Your task to perform on an android device: set default search engine in the chrome app Image 0: 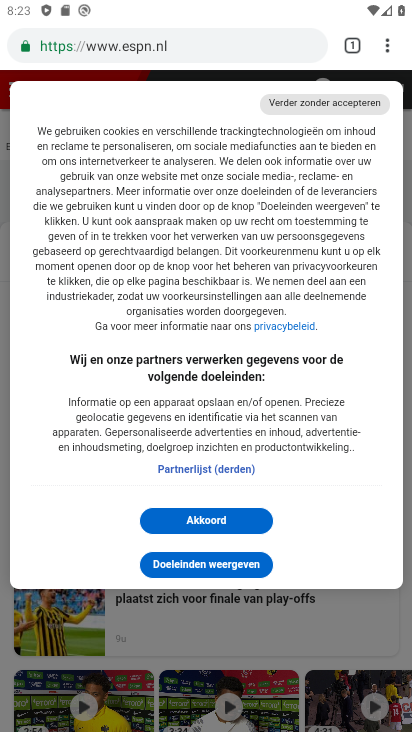
Step 0: press home button
Your task to perform on an android device: set default search engine in the chrome app Image 1: 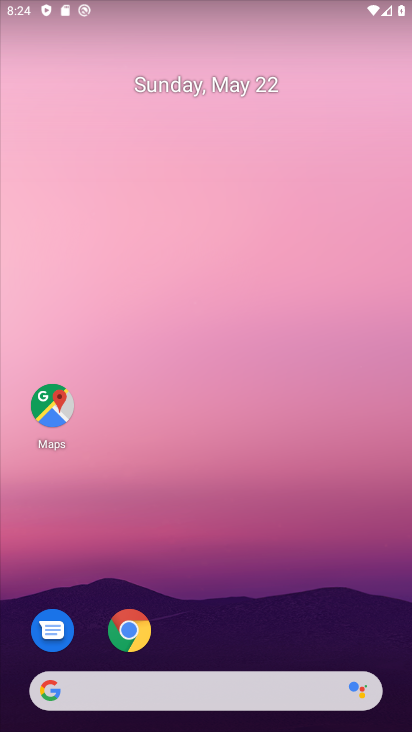
Step 1: click (122, 628)
Your task to perform on an android device: set default search engine in the chrome app Image 2: 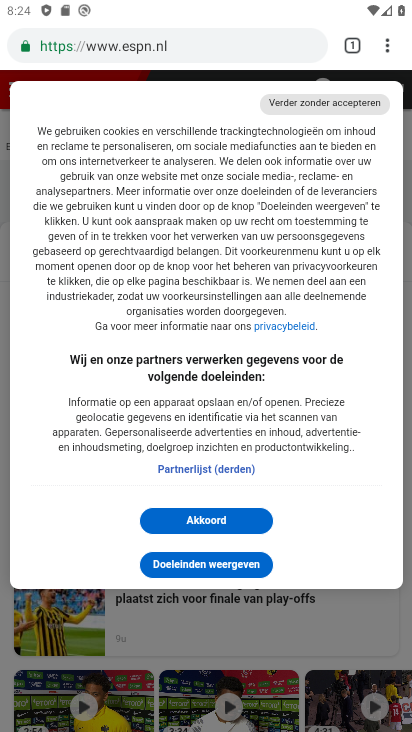
Step 2: click (380, 61)
Your task to perform on an android device: set default search engine in the chrome app Image 3: 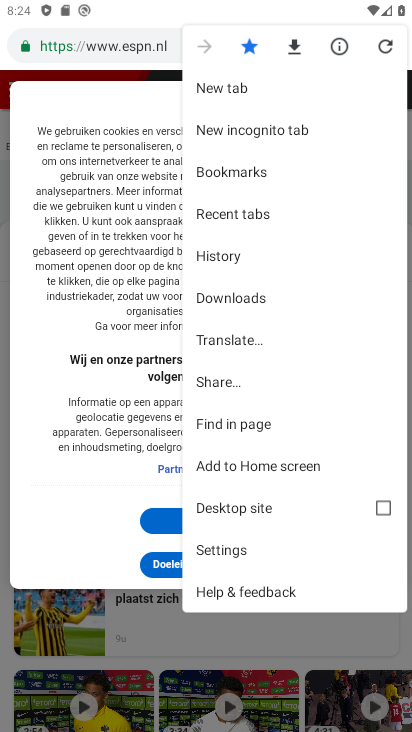
Step 3: click (233, 534)
Your task to perform on an android device: set default search engine in the chrome app Image 4: 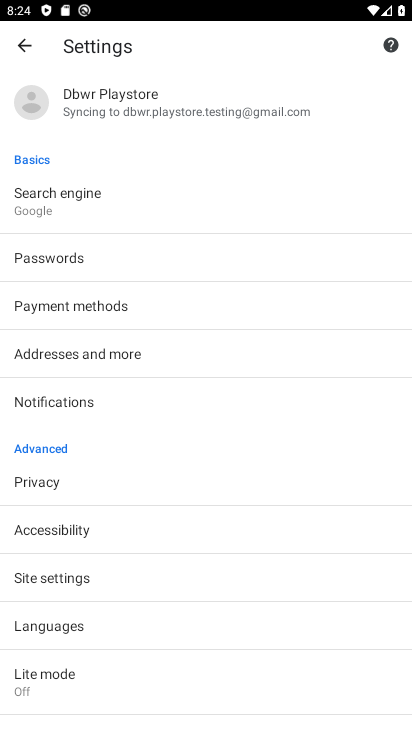
Step 4: click (120, 216)
Your task to perform on an android device: set default search engine in the chrome app Image 5: 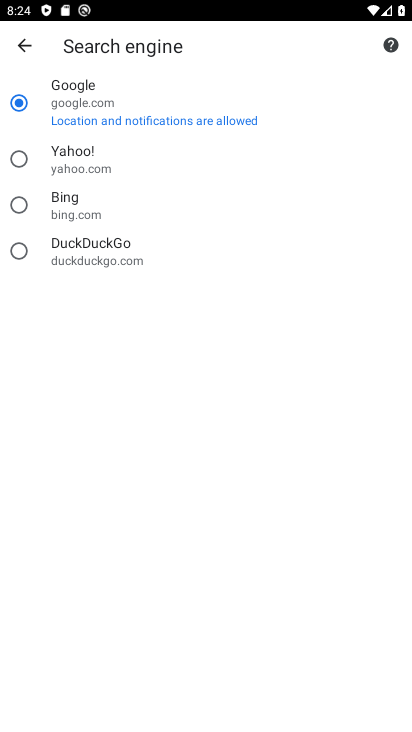
Step 5: click (58, 257)
Your task to perform on an android device: set default search engine in the chrome app Image 6: 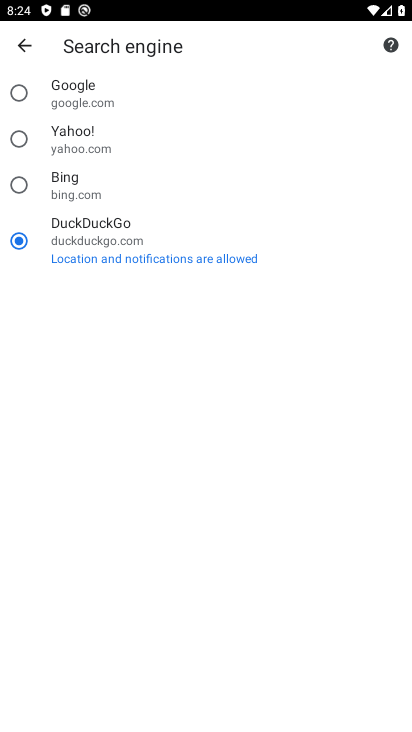
Step 6: task complete